Your task to perform on an android device: Go to notification settings Image 0: 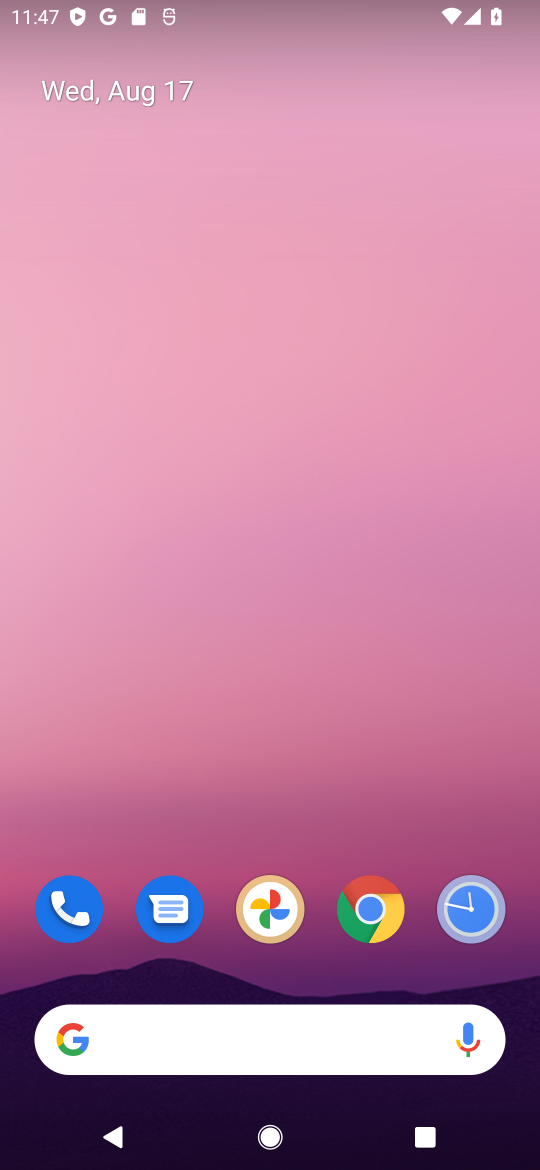
Step 0: drag from (320, 961) to (231, 124)
Your task to perform on an android device: Go to notification settings Image 1: 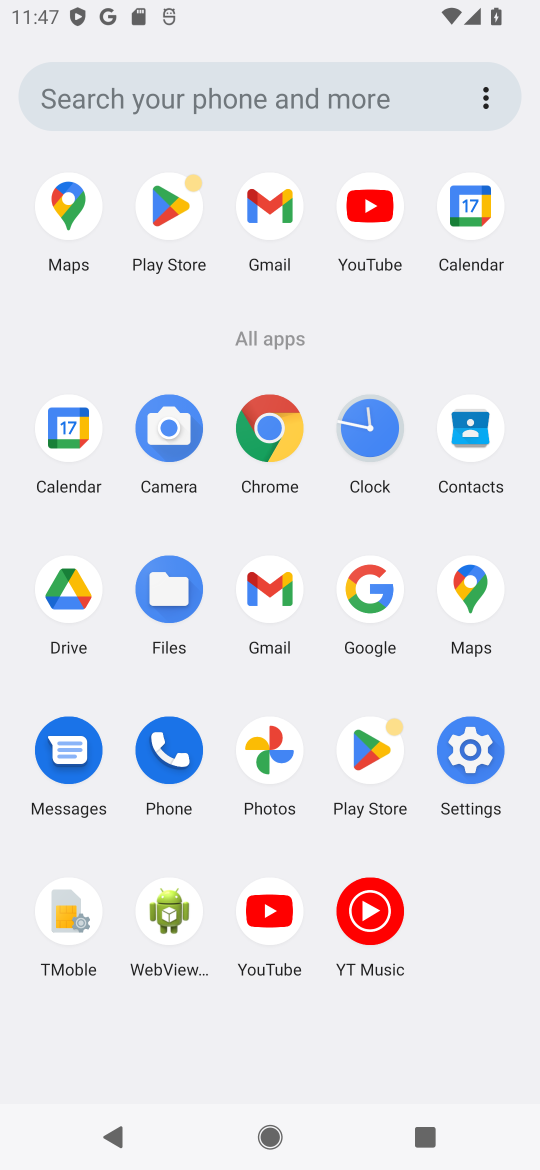
Step 1: click (468, 740)
Your task to perform on an android device: Go to notification settings Image 2: 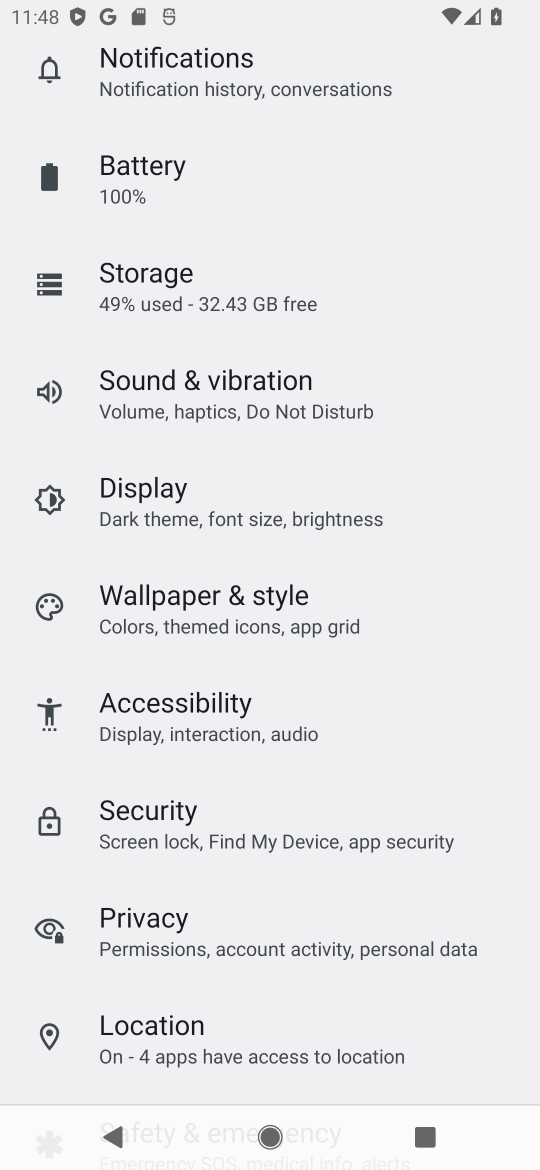
Step 2: click (180, 54)
Your task to perform on an android device: Go to notification settings Image 3: 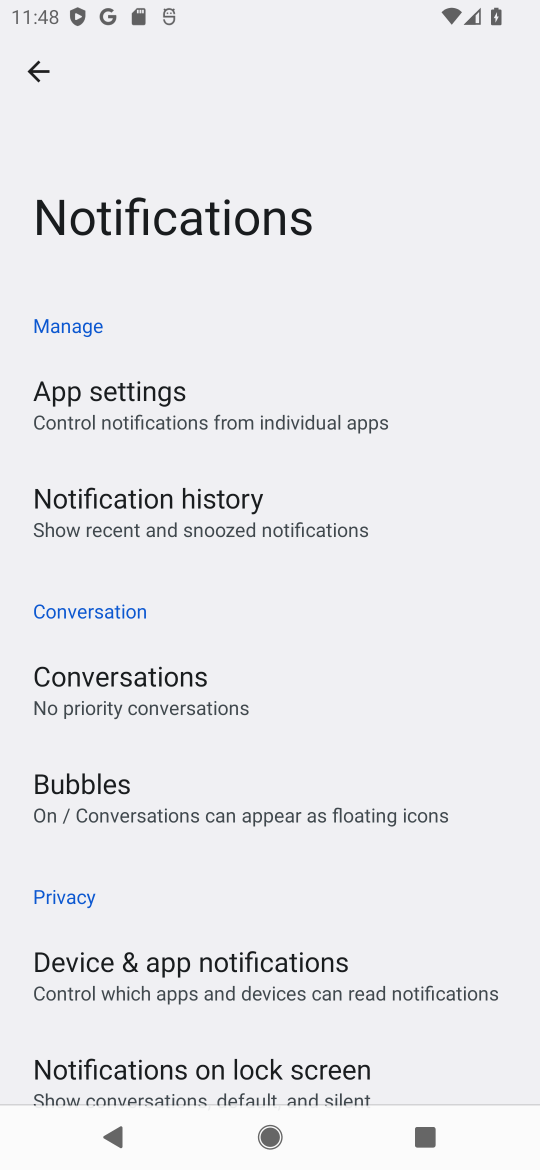
Step 3: task complete